Your task to perform on an android device: change notifications settings Image 0: 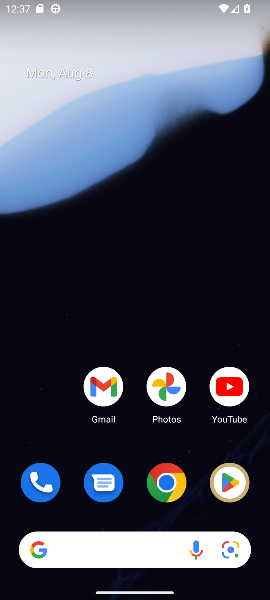
Step 0: drag from (124, 543) to (176, 118)
Your task to perform on an android device: change notifications settings Image 1: 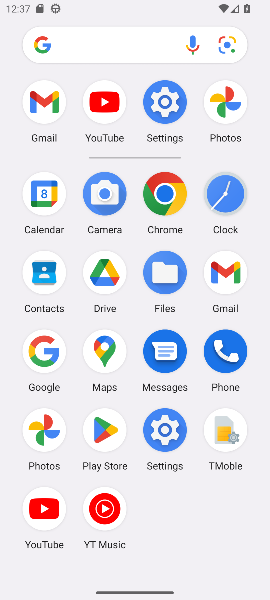
Step 1: click (152, 92)
Your task to perform on an android device: change notifications settings Image 2: 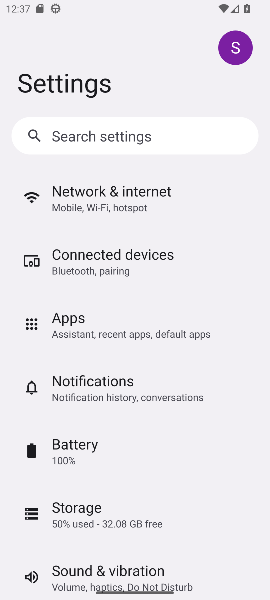
Step 2: click (97, 383)
Your task to perform on an android device: change notifications settings Image 3: 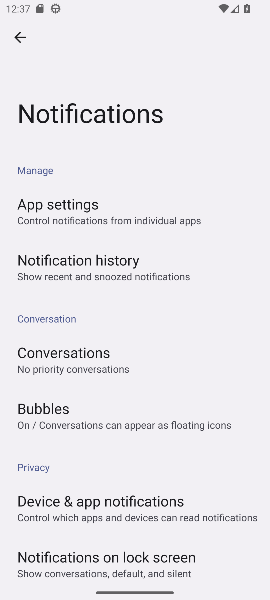
Step 3: task complete